Your task to perform on an android device: Go to wifi settings Image 0: 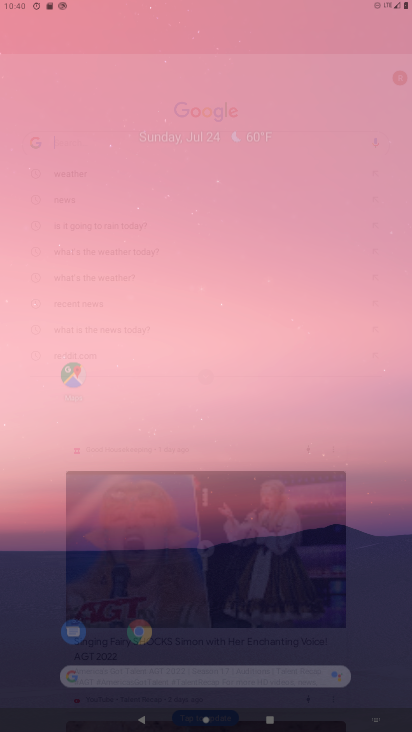
Step 0: click (277, 133)
Your task to perform on an android device: Go to wifi settings Image 1: 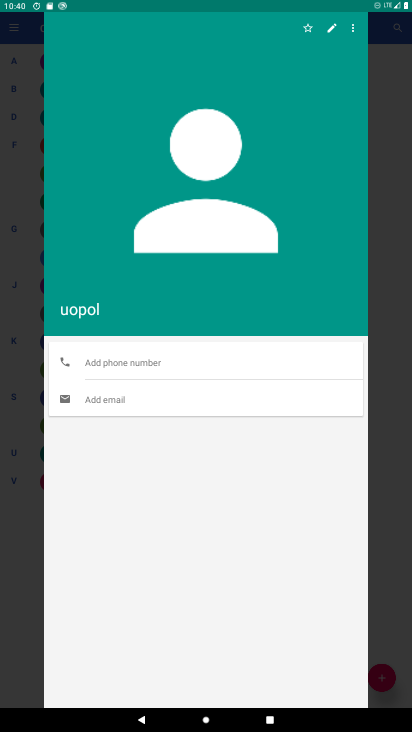
Step 1: press home button
Your task to perform on an android device: Go to wifi settings Image 2: 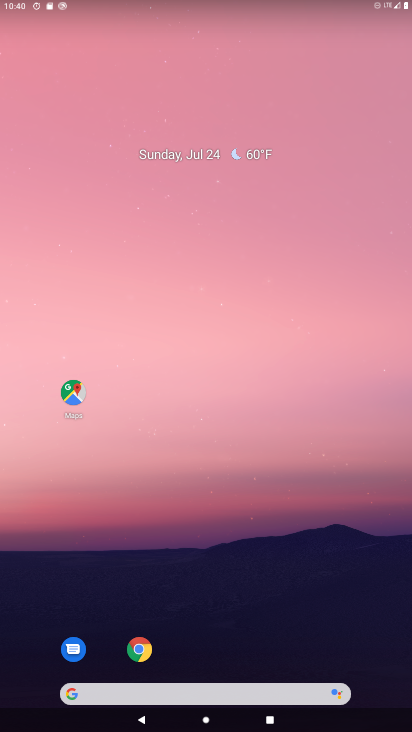
Step 2: click (172, 4)
Your task to perform on an android device: Go to wifi settings Image 3: 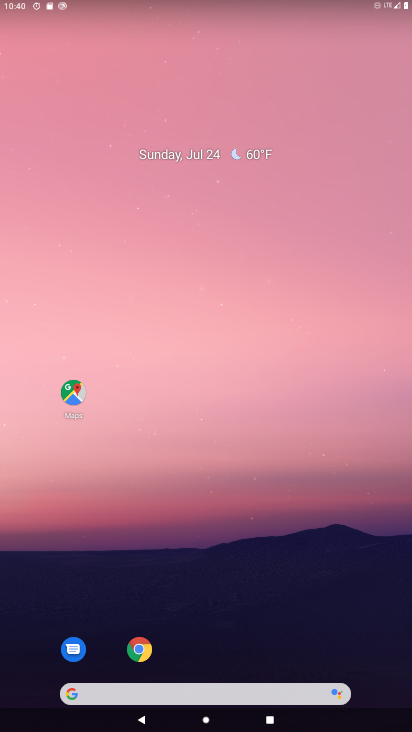
Step 3: drag from (344, 608) to (134, 37)
Your task to perform on an android device: Go to wifi settings Image 4: 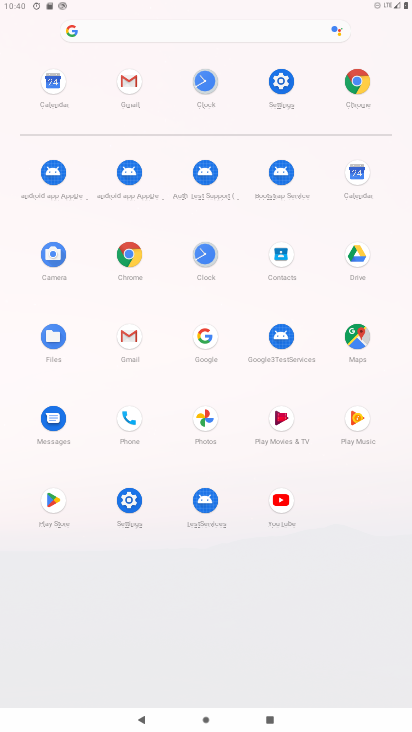
Step 4: click (283, 81)
Your task to perform on an android device: Go to wifi settings Image 5: 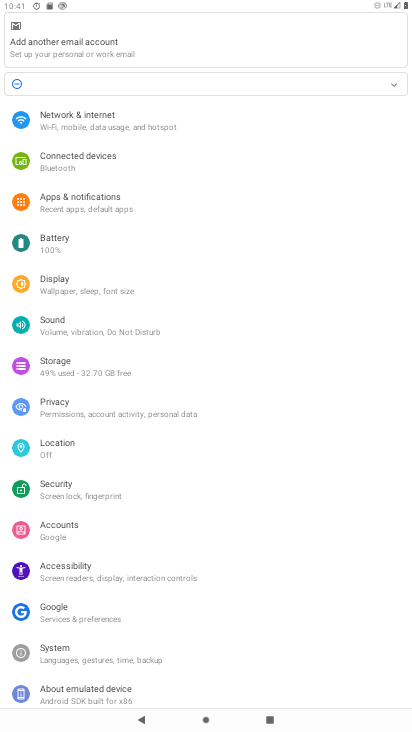
Step 5: click (78, 143)
Your task to perform on an android device: Go to wifi settings Image 6: 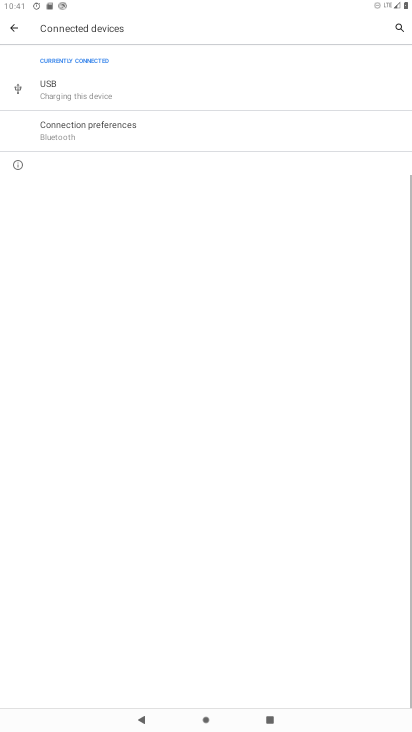
Step 6: click (19, 39)
Your task to perform on an android device: Go to wifi settings Image 7: 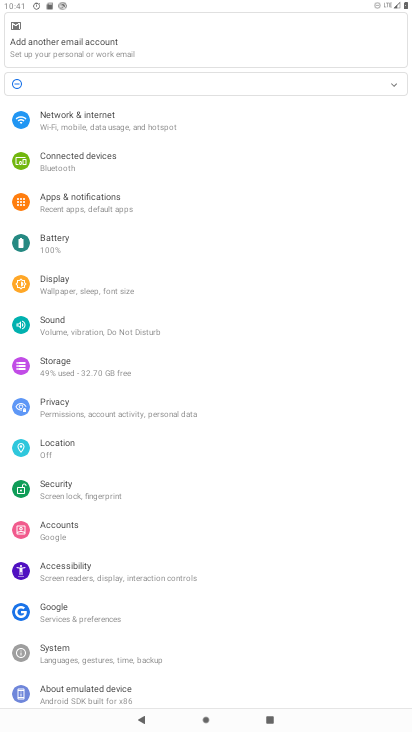
Step 7: click (104, 128)
Your task to perform on an android device: Go to wifi settings Image 8: 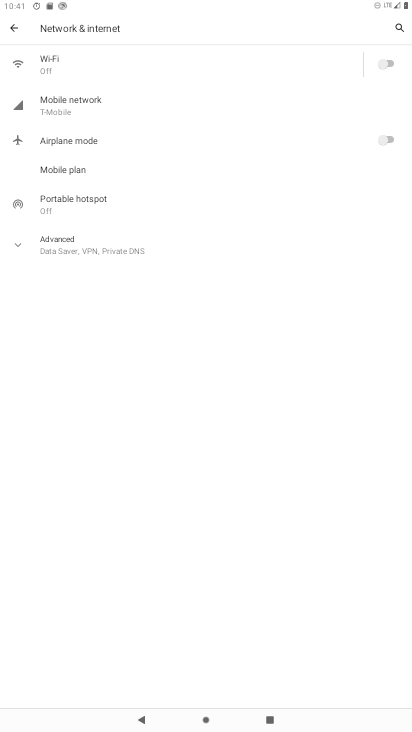
Step 8: click (128, 64)
Your task to perform on an android device: Go to wifi settings Image 9: 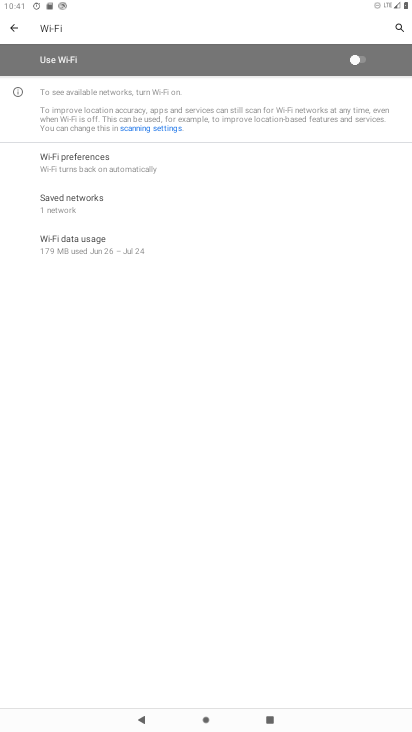
Step 9: click (370, 48)
Your task to perform on an android device: Go to wifi settings Image 10: 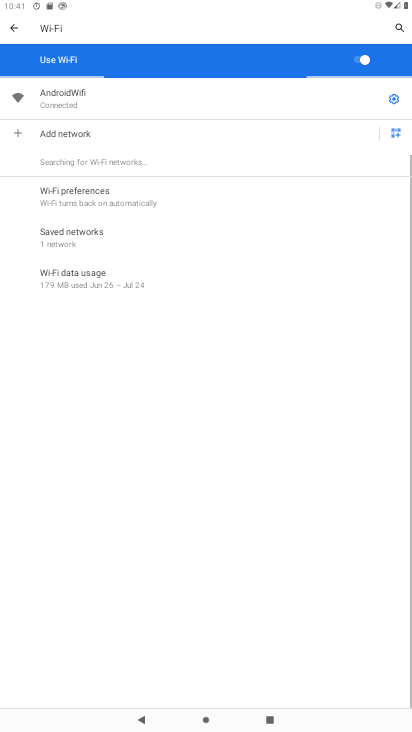
Step 10: click (394, 98)
Your task to perform on an android device: Go to wifi settings Image 11: 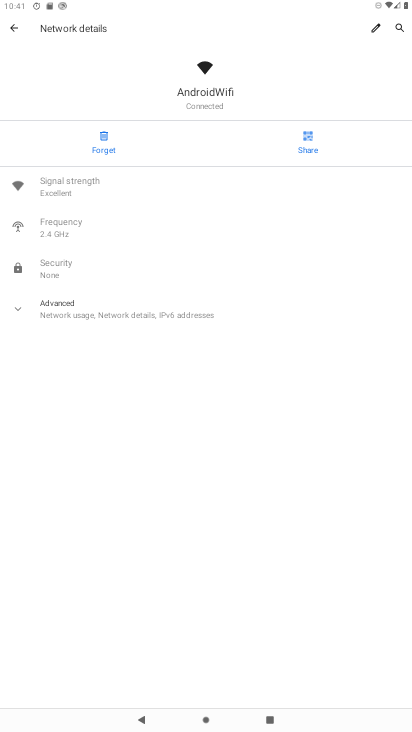
Step 11: task complete